Your task to perform on an android device: Go to Wikipedia Image 0: 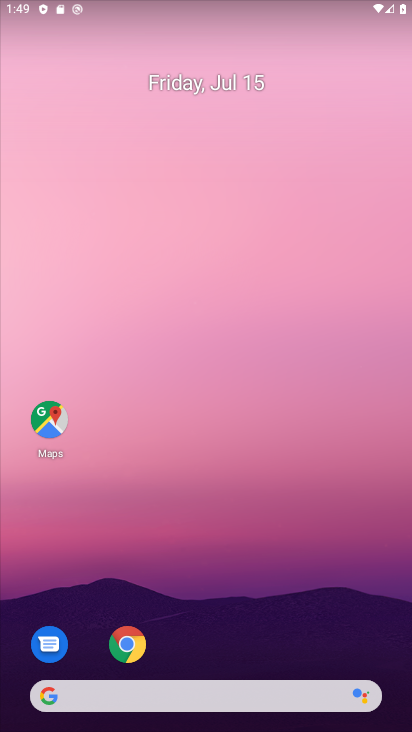
Step 0: click (67, 688)
Your task to perform on an android device: Go to Wikipedia Image 1: 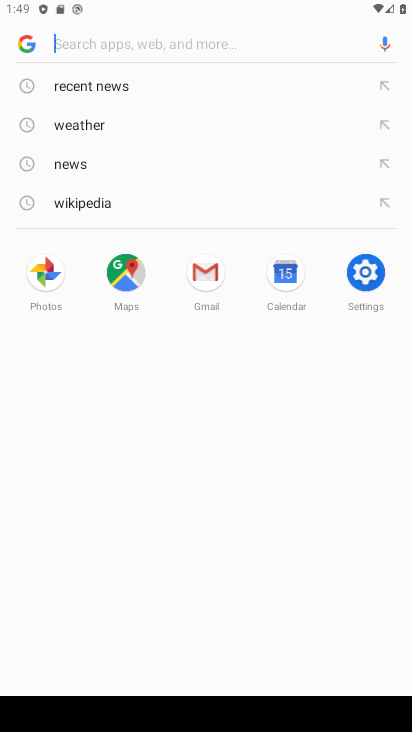
Step 1: click (74, 198)
Your task to perform on an android device: Go to Wikipedia Image 2: 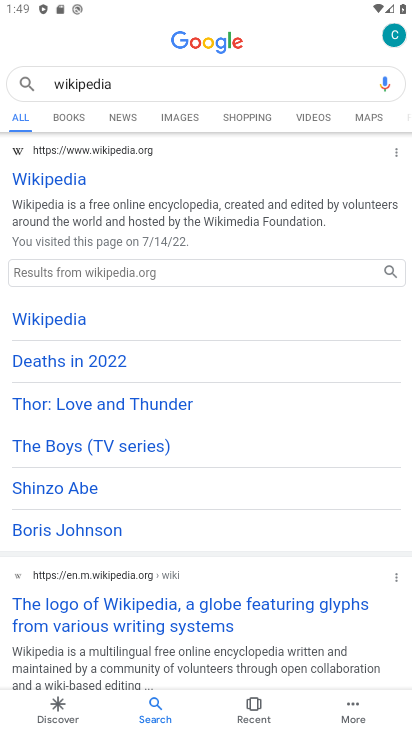
Step 2: task complete